Your task to perform on an android device: Open Yahoo.com Image 0: 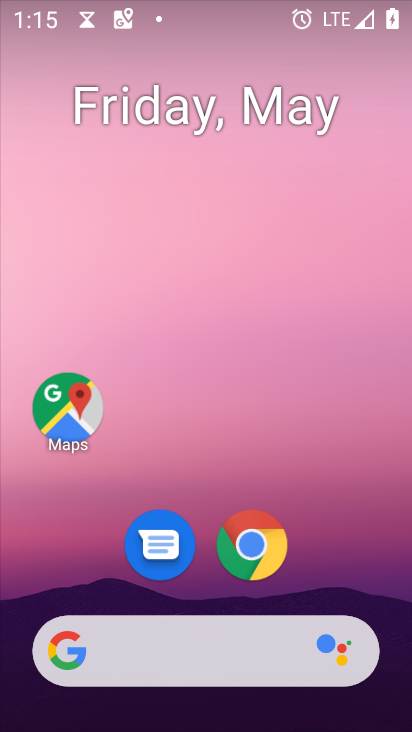
Step 0: click (272, 567)
Your task to perform on an android device: Open Yahoo.com Image 1: 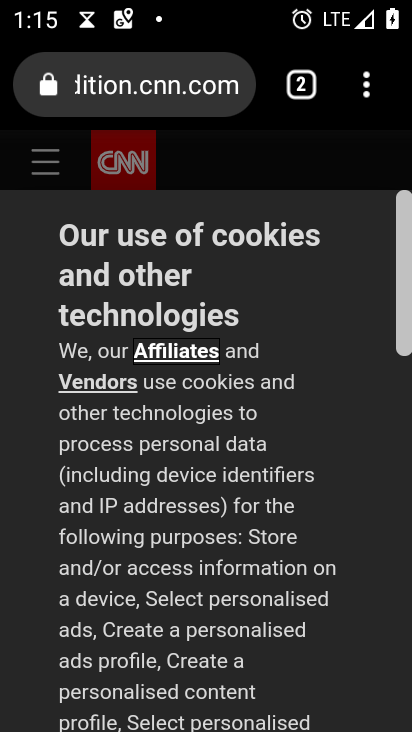
Step 1: click (296, 83)
Your task to perform on an android device: Open Yahoo.com Image 2: 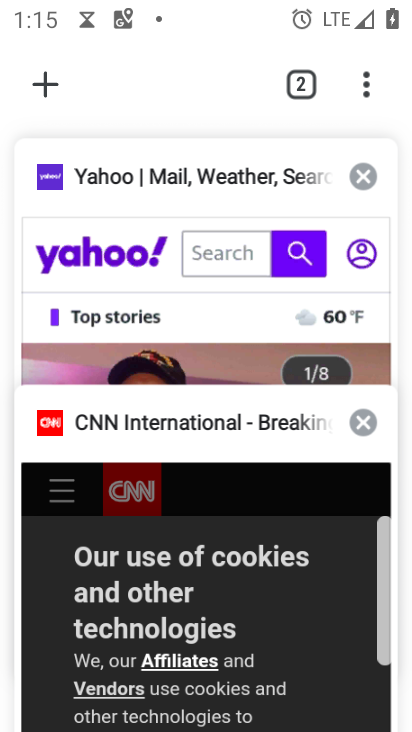
Step 2: click (104, 198)
Your task to perform on an android device: Open Yahoo.com Image 3: 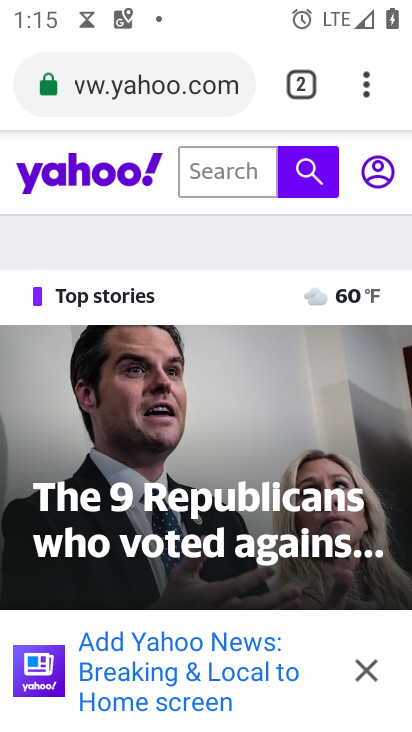
Step 3: task complete